Your task to perform on an android device: toggle show notifications on the lock screen Image 0: 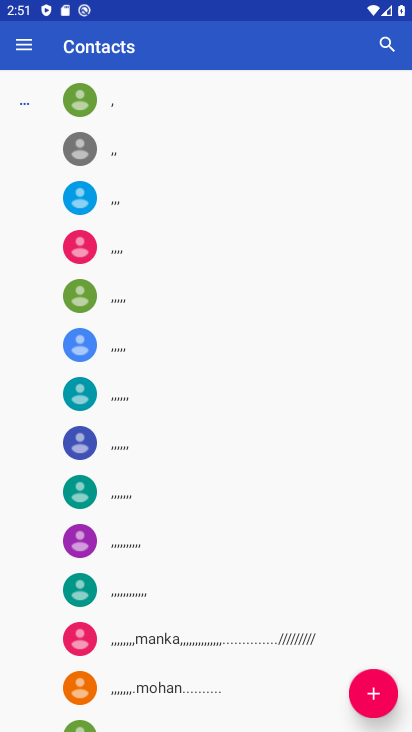
Step 0: press home button
Your task to perform on an android device: toggle show notifications on the lock screen Image 1: 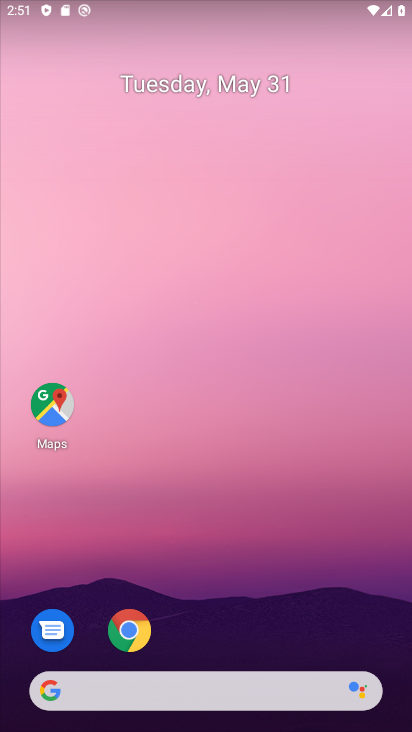
Step 1: drag from (194, 628) to (323, 33)
Your task to perform on an android device: toggle show notifications on the lock screen Image 2: 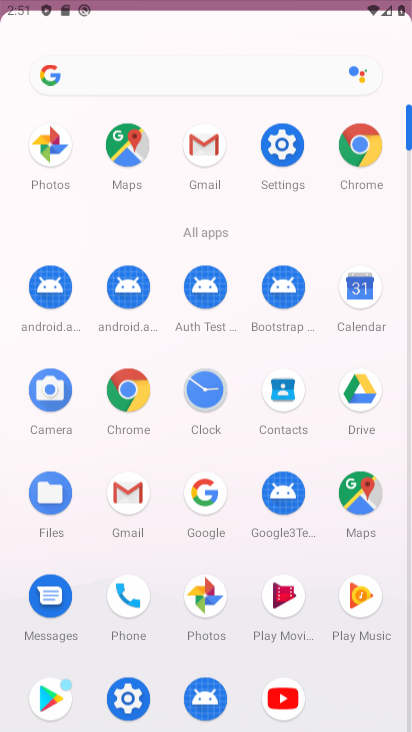
Step 2: click (274, 155)
Your task to perform on an android device: toggle show notifications on the lock screen Image 3: 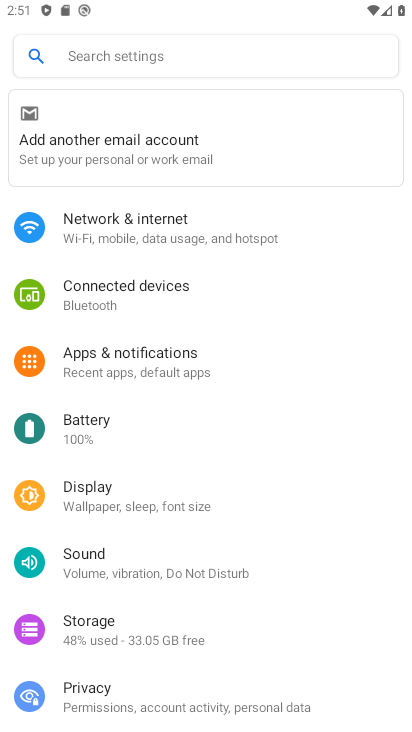
Step 3: click (154, 348)
Your task to perform on an android device: toggle show notifications on the lock screen Image 4: 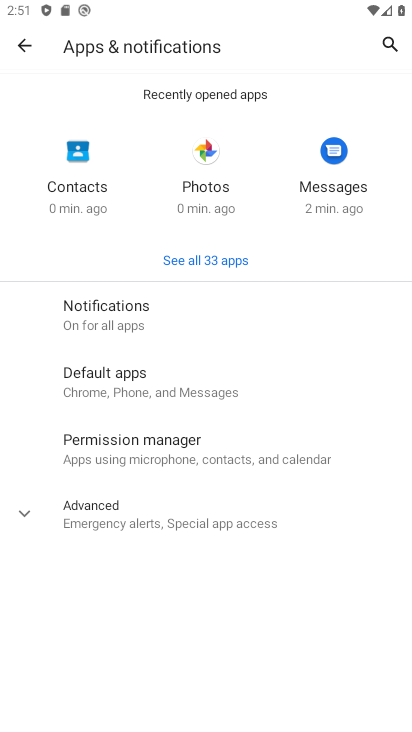
Step 4: click (144, 320)
Your task to perform on an android device: toggle show notifications on the lock screen Image 5: 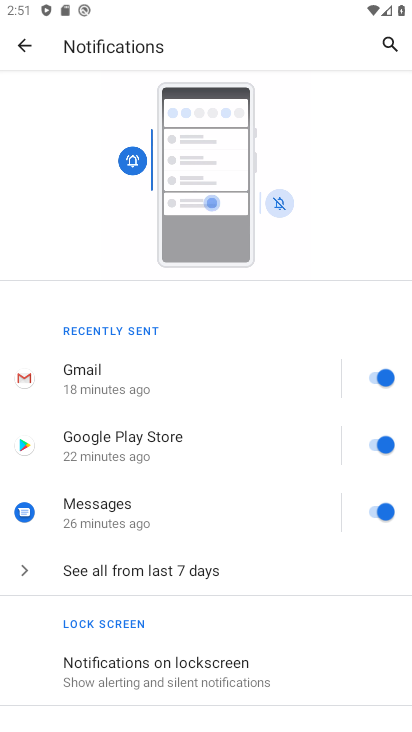
Step 5: click (258, 677)
Your task to perform on an android device: toggle show notifications on the lock screen Image 6: 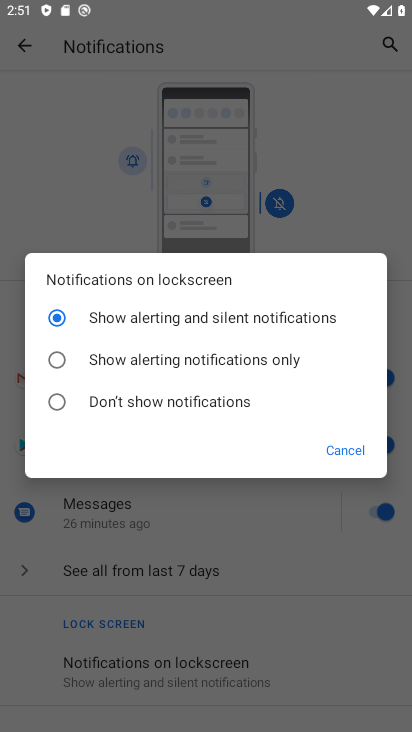
Step 6: task complete